Your task to perform on an android device: Open the calendar app, open the side menu, and click the "Day" option Image 0: 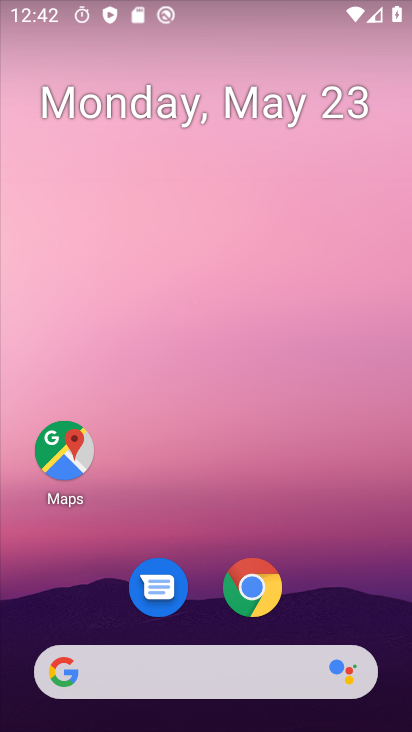
Step 0: drag from (184, 568) to (248, 171)
Your task to perform on an android device: Open the calendar app, open the side menu, and click the "Day" option Image 1: 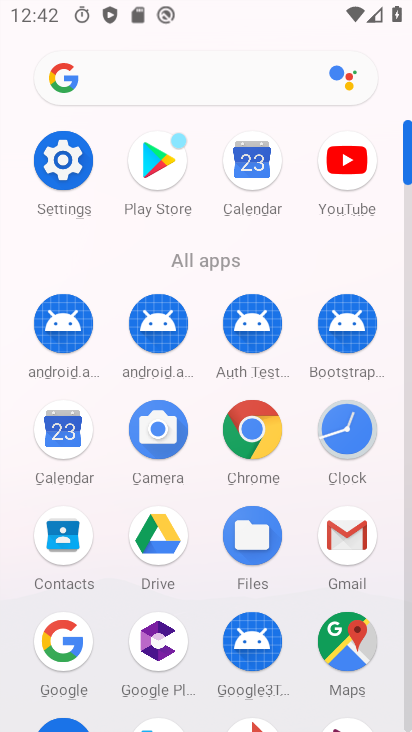
Step 1: click (70, 449)
Your task to perform on an android device: Open the calendar app, open the side menu, and click the "Day" option Image 2: 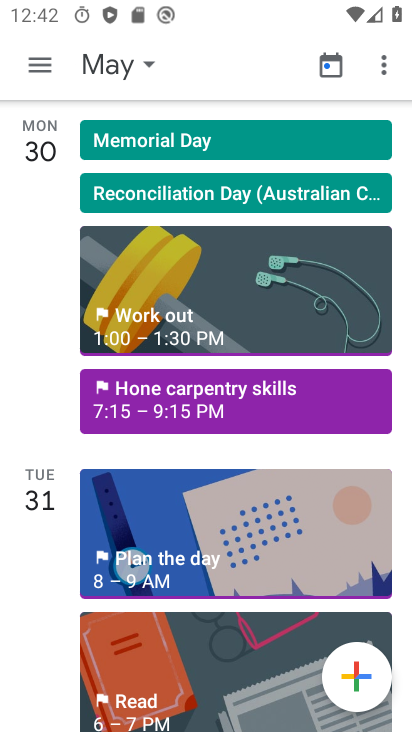
Step 2: click (36, 63)
Your task to perform on an android device: Open the calendar app, open the side menu, and click the "Day" option Image 3: 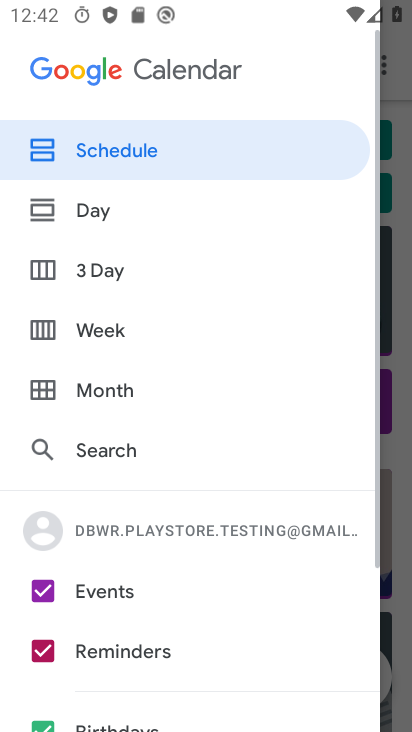
Step 3: click (134, 210)
Your task to perform on an android device: Open the calendar app, open the side menu, and click the "Day" option Image 4: 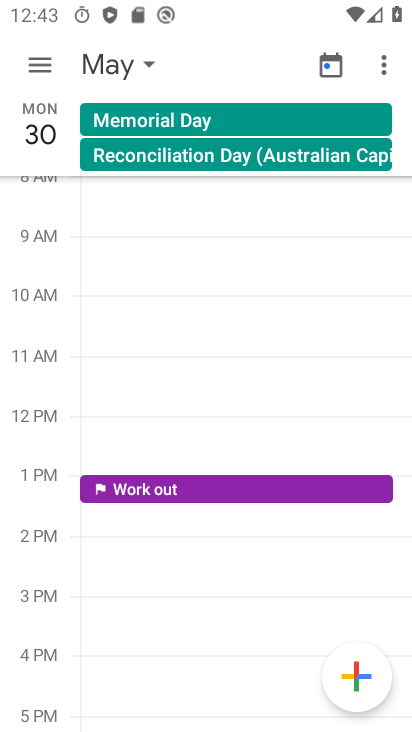
Step 4: task complete